Your task to perform on an android device: Empty the shopping cart on ebay. Add logitech g502 to the cart on ebay Image 0: 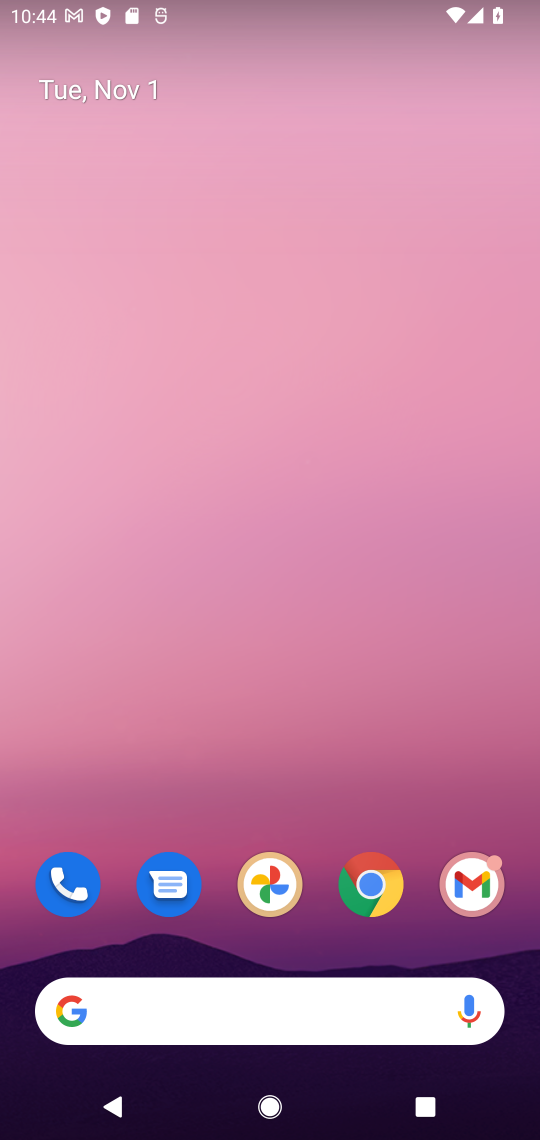
Step 0: click (360, 903)
Your task to perform on an android device: Empty the shopping cart on ebay. Add logitech g502 to the cart on ebay Image 1: 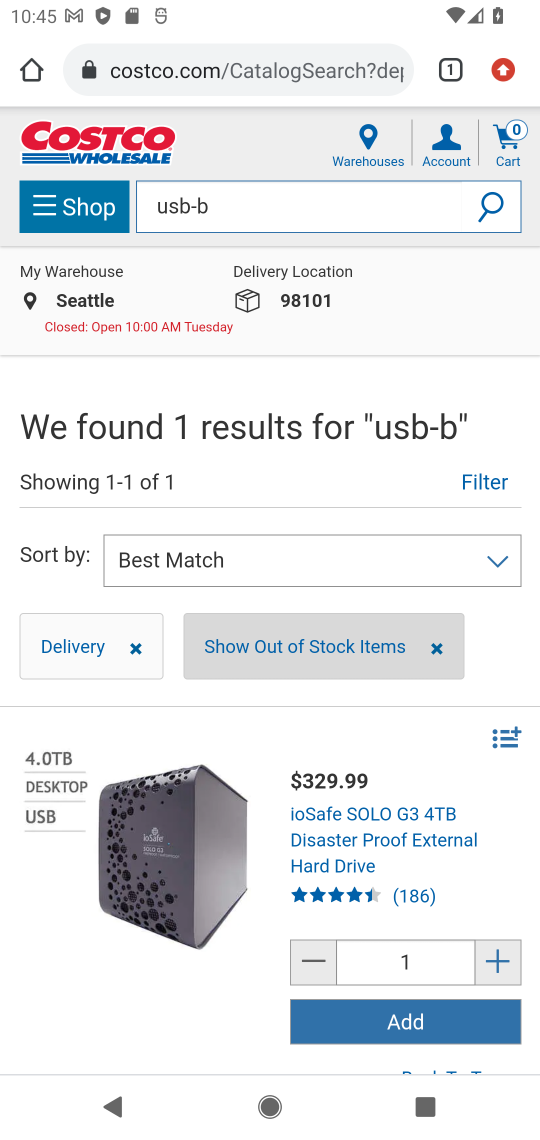
Step 1: press home button
Your task to perform on an android device: Empty the shopping cart on ebay. Add logitech g502 to the cart on ebay Image 2: 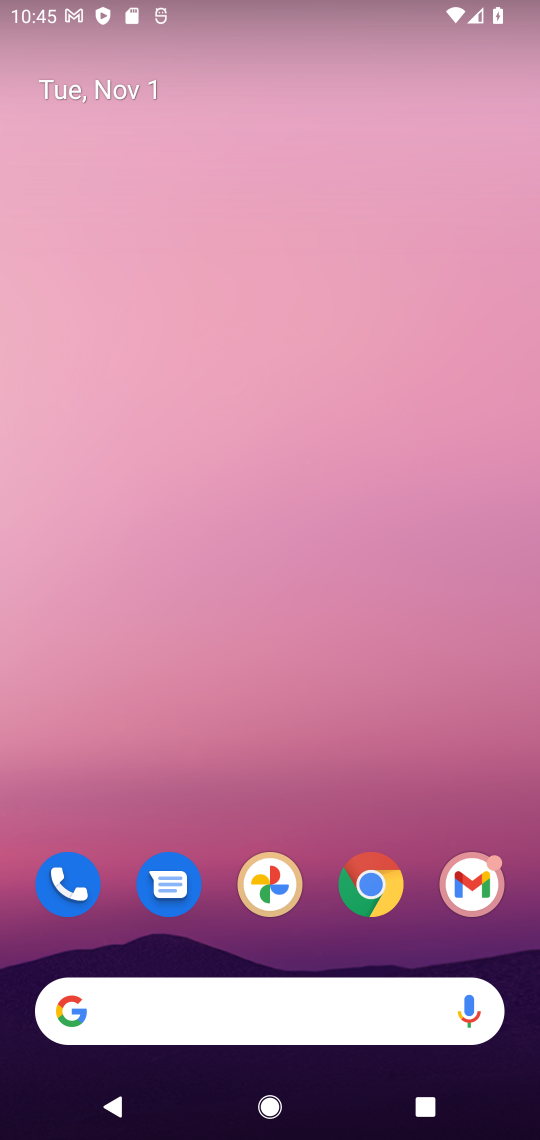
Step 2: click (363, 912)
Your task to perform on an android device: Empty the shopping cart on ebay. Add logitech g502 to the cart on ebay Image 3: 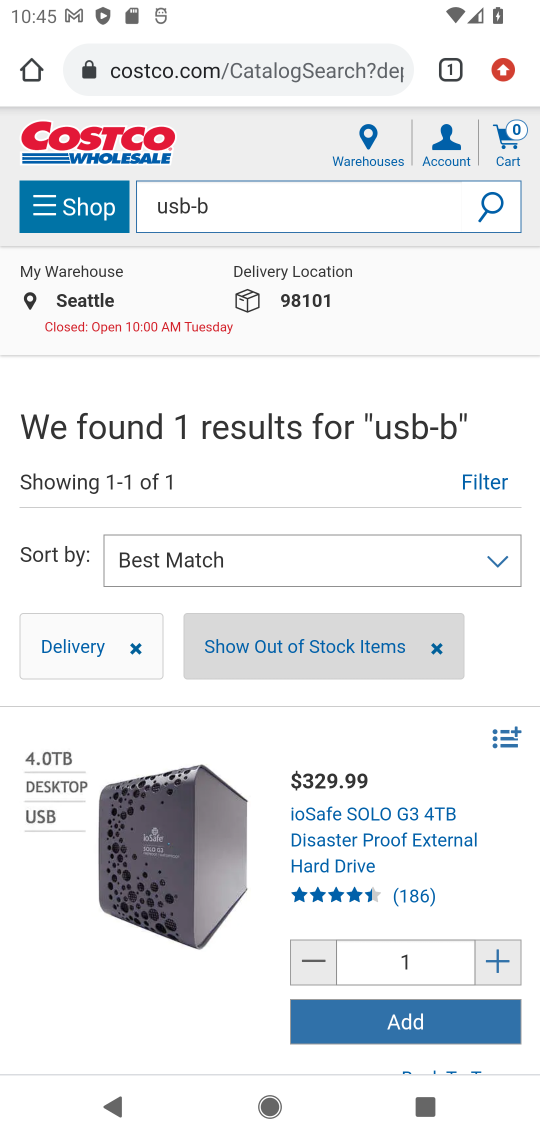
Step 3: click (263, 65)
Your task to perform on an android device: Empty the shopping cart on ebay. Add logitech g502 to the cart on ebay Image 4: 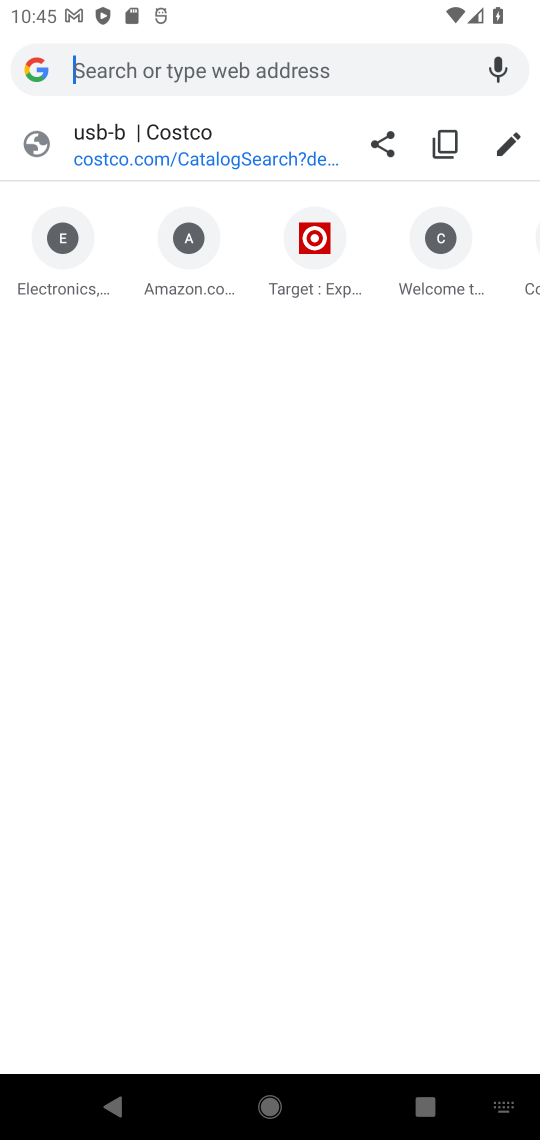
Step 4: type "ebay"
Your task to perform on an android device: Empty the shopping cart on ebay. Add logitech g502 to the cart on ebay Image 5: 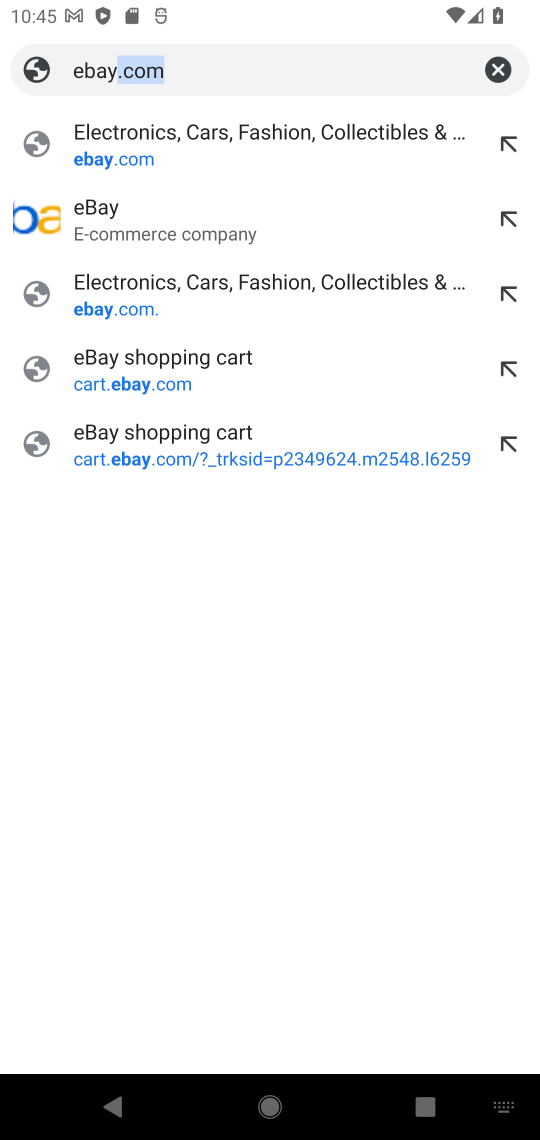
Step 5: press enter
Your task to perform on an android device: Empty the shopping cart on ebay. Add logitech g502 to the cart on ebay Image 6: 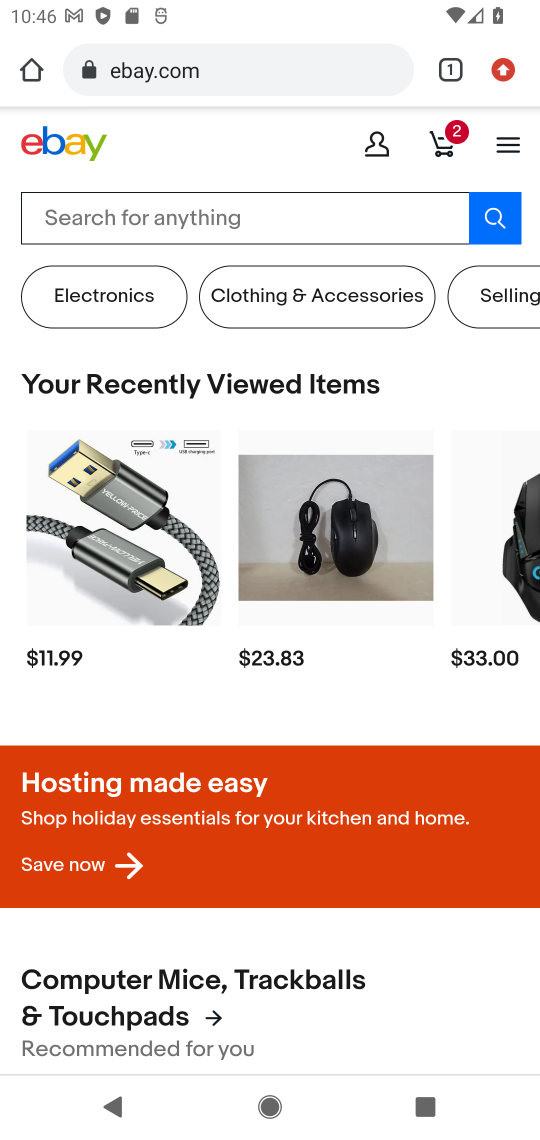
Step 6: click (163, 220)
Your task to perform on an android device: Empty the shopping cart on ebay. Add logitech g502 to the cart on ebay Image 7: 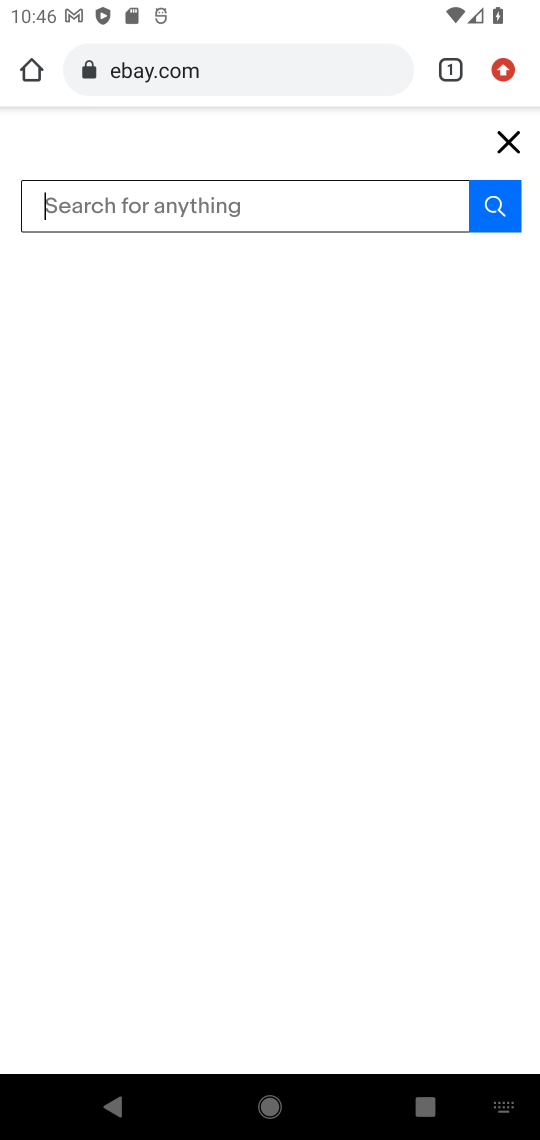
Step 7: type "logitech g502"
Your task to perform on an android device: Empty the shopping cart on ebay. Add logitech g502 to the cart on ebay Image 8: 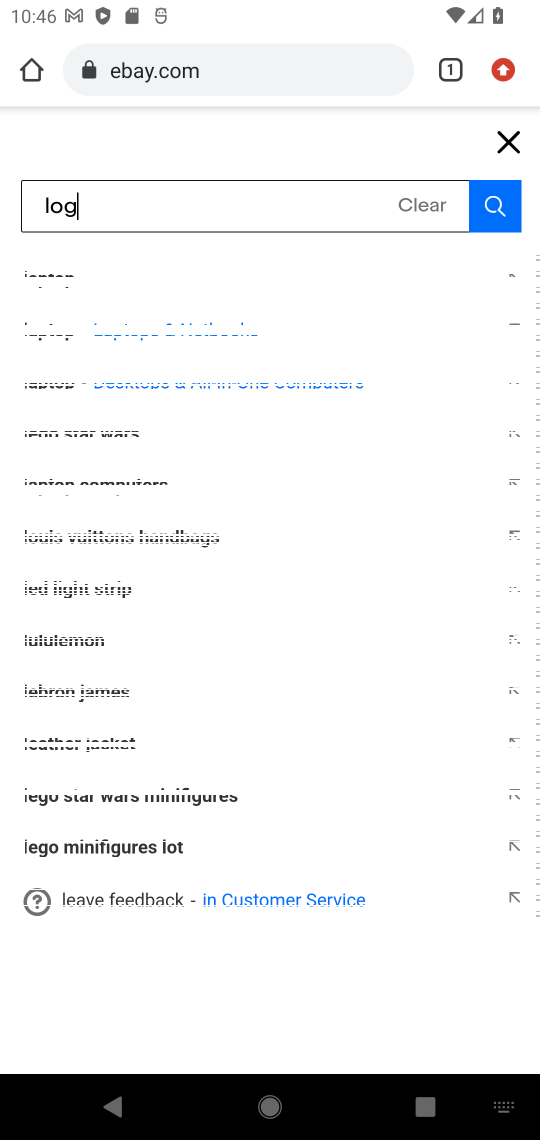
Step 8: type ""
Your task to perform on an android device: Empty the shopping cart on ebay. Add logitech g502 to the cart on ebay Image 9: 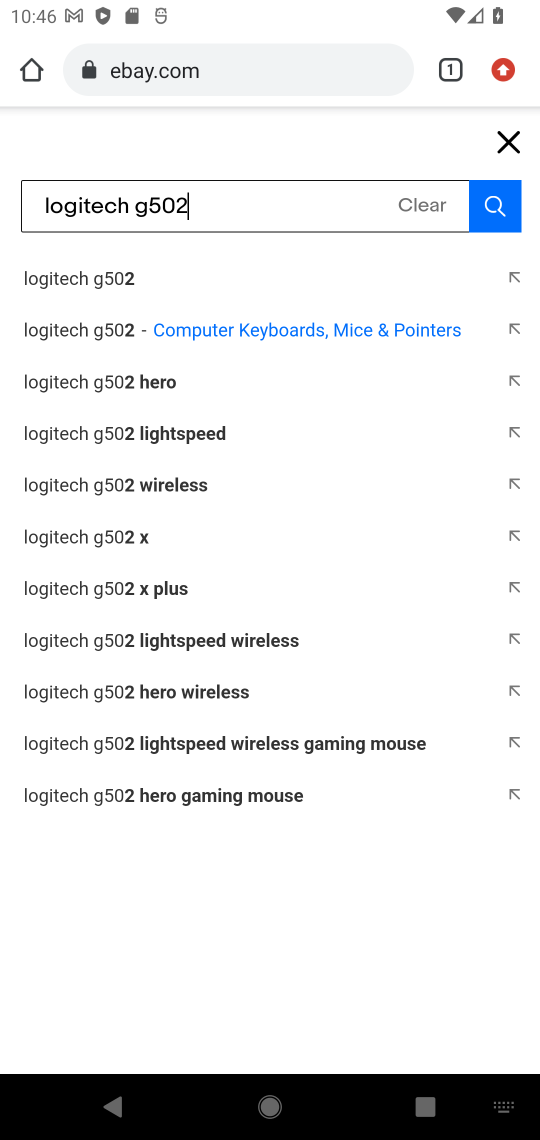
Step 9: click (503, 203)
Your task to perform on an android device: Empty the shopping cart on ebay. Add logitech g502 to the cart on ebay Image 10: 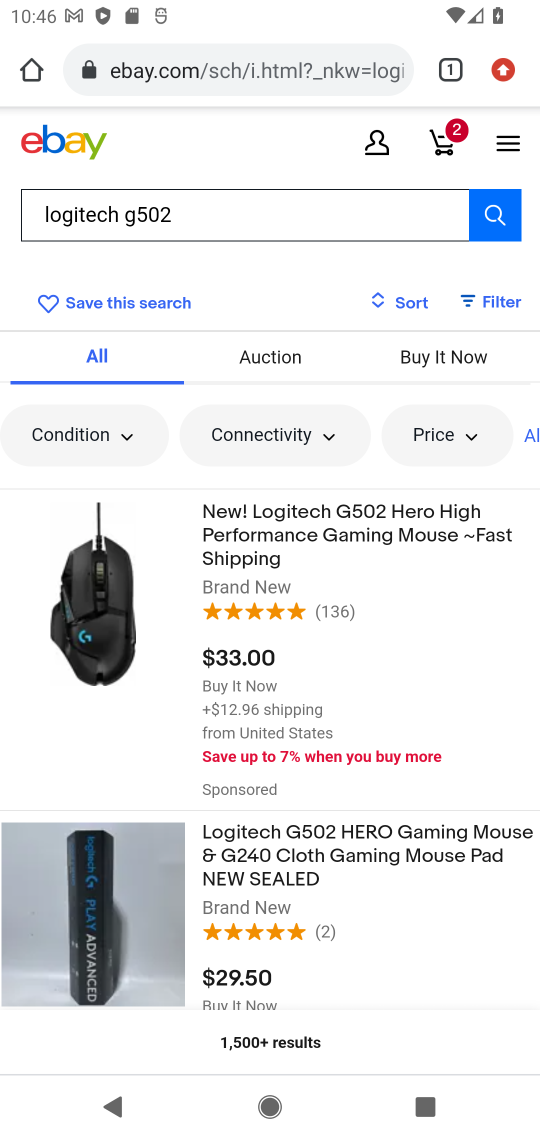
Step 10: click (371, 556)
Your task to perform on an android device: Empty the shopping cart on ebay. Add logitech g502 to the cart on ebay Image 11: 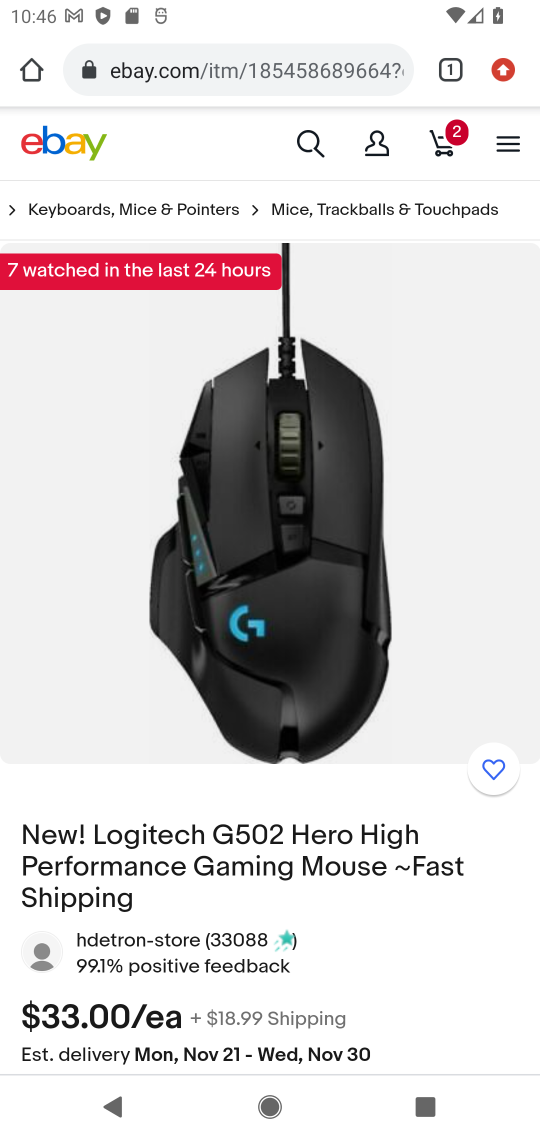
Step 11: drag from (391, 909) to (382, 290)
Your task to perform on an android device: Empty the shopping cart on ebay. Add logitech g502 to the cart on ebay Image 12: 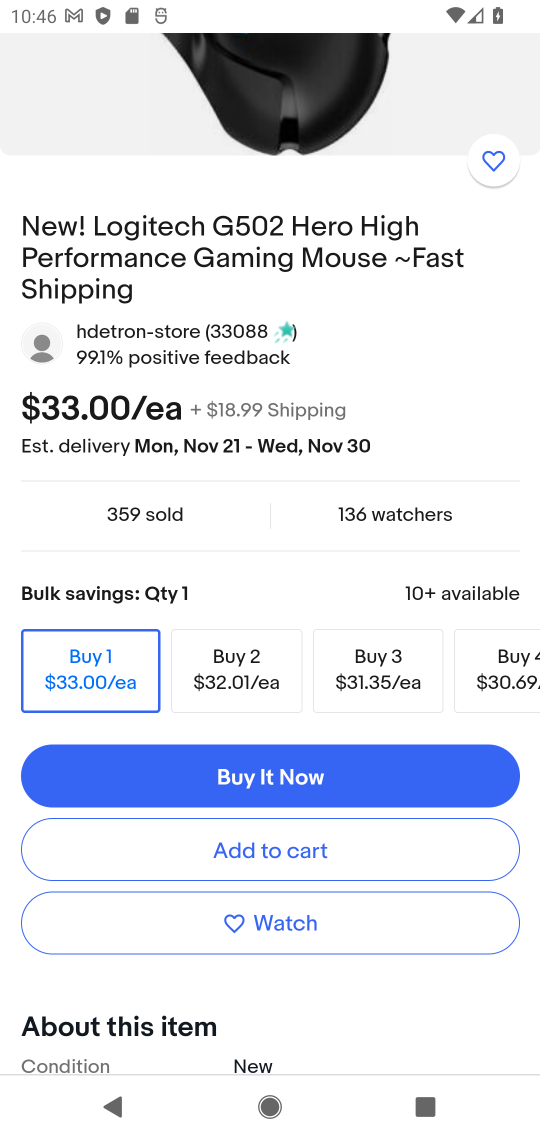
Step 12: click (305, 859)
Your task to perform on an android device: Empty the shopping cart on ebay. Add logitech g502 to the cart on ebay Image 13: 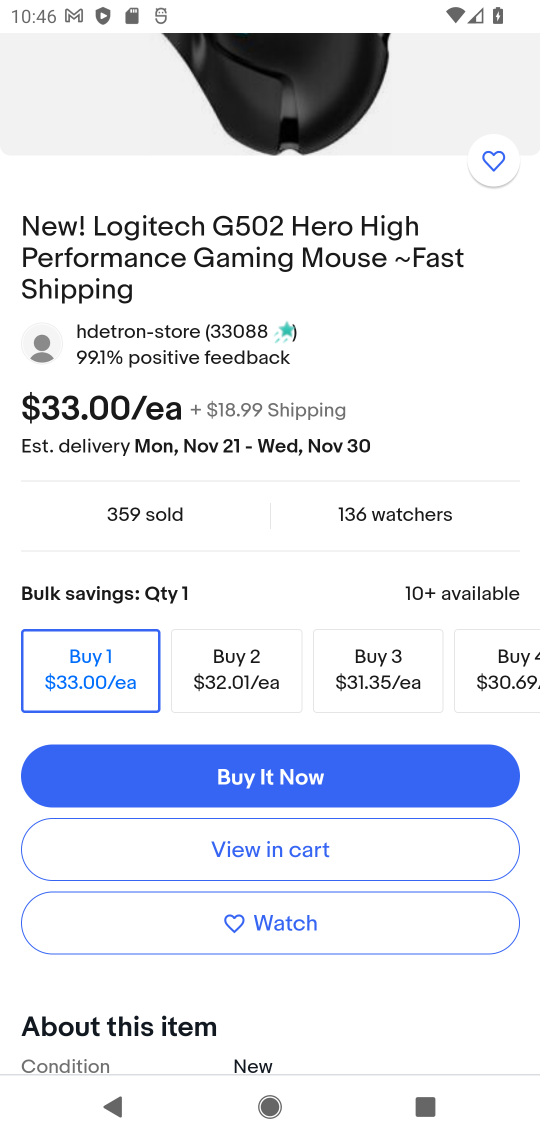
Step 13: click (306, 857)
Your task to perform on an android device: Empty the shopping cart on ebay. Add logitech g502 to the cart on ebay Image 14: 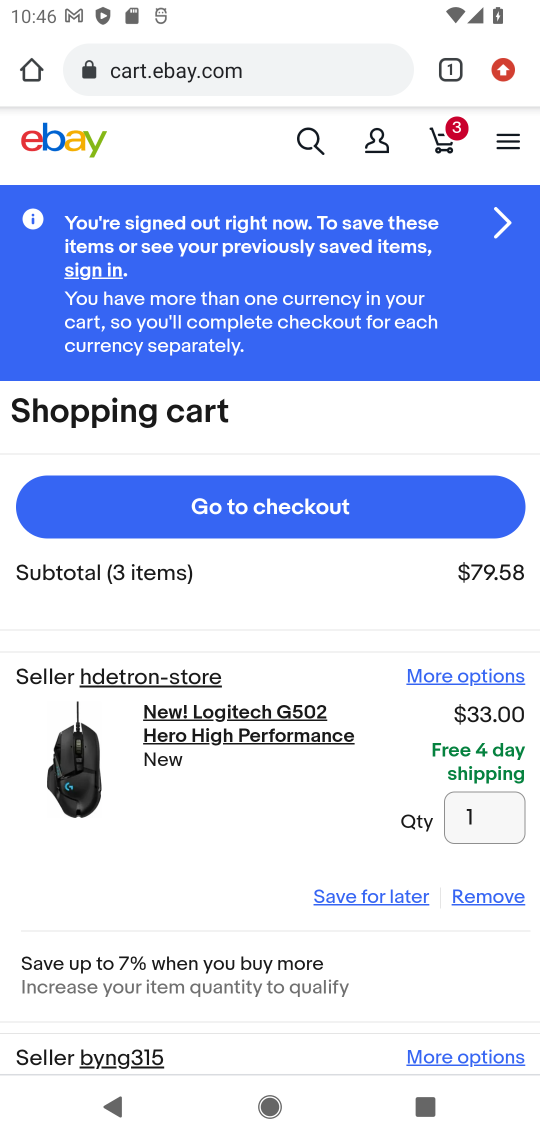
Step 14: task complete